Your task to perform on an android device: Go to calendar. Show me events next week Image 0: 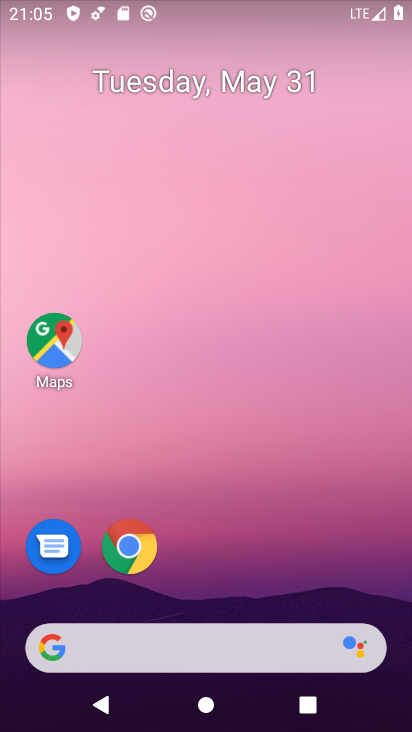
Step 0: drag from (396, 670) to (355, 118)
Your task to perform on an android device: Go to calendar. Show me events next week Image 1: 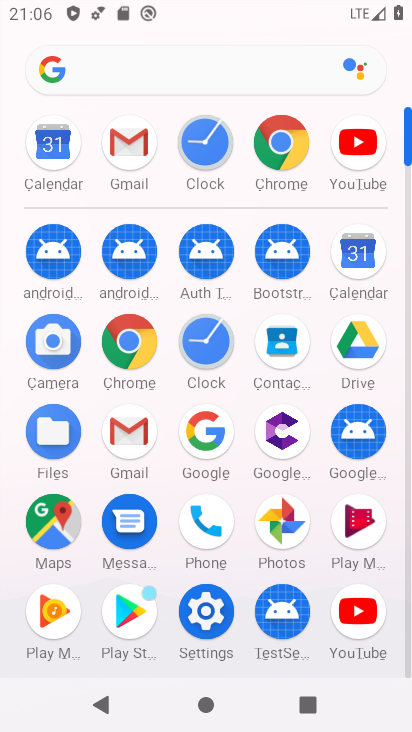
Step 1: click (353, 253)
Your task to perform on an android device: Go to calendar. Show me events next week Image 2: 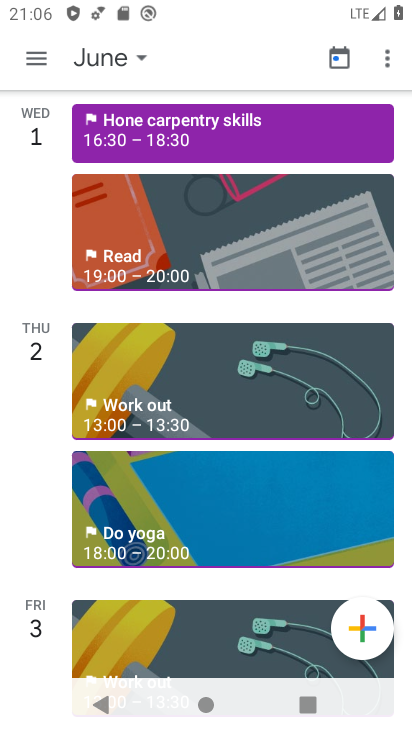
Step 2: click (138, 60)
Your task to perform on an android device: Go to calendar. Show me events next week Image 3: 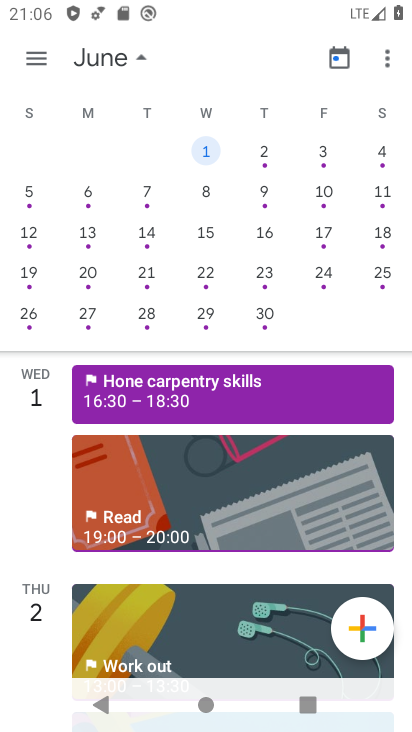
Step 3: click (203, 189)
Your task to perform on an android device: Go to calendar. Show me events next week Image 4: 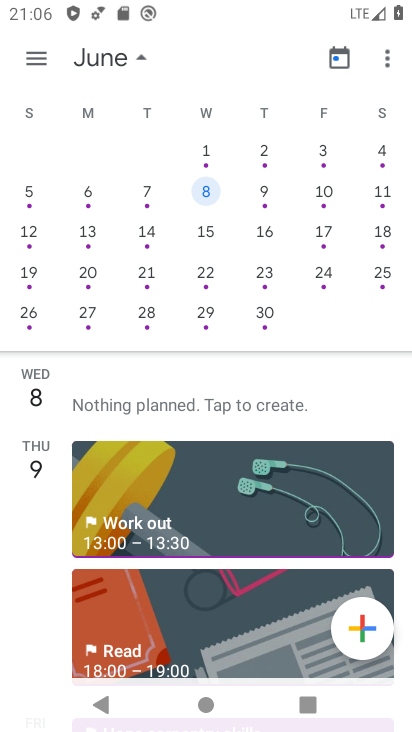
Step 4: click (36, 57)
Your task to perform on an android device: Go to calendar. Show me events next week Image 5: 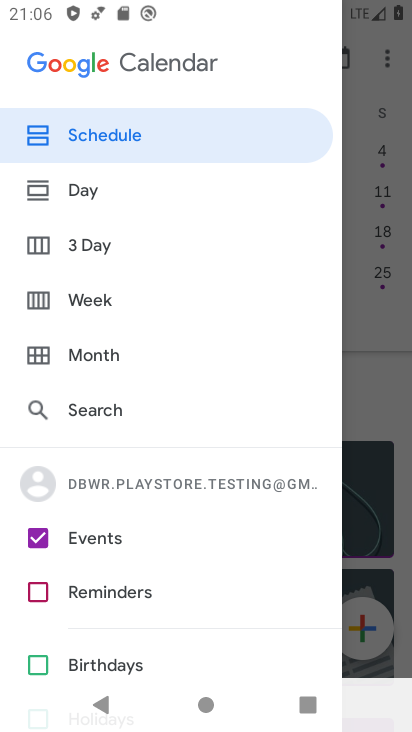
Step 5: click (78, 296)
Your task to perform on an android device: Go to calendar. Show me events next week Image 6: 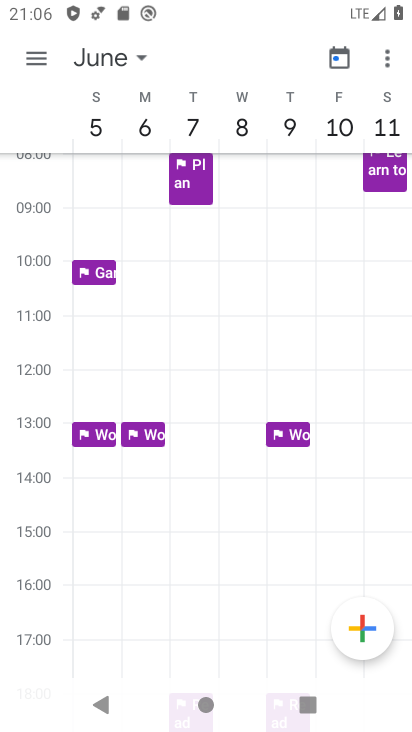
Step 6: click (42, 57)
Your task to perform on an android device: Go to calendar. Show me events next week Image 7: 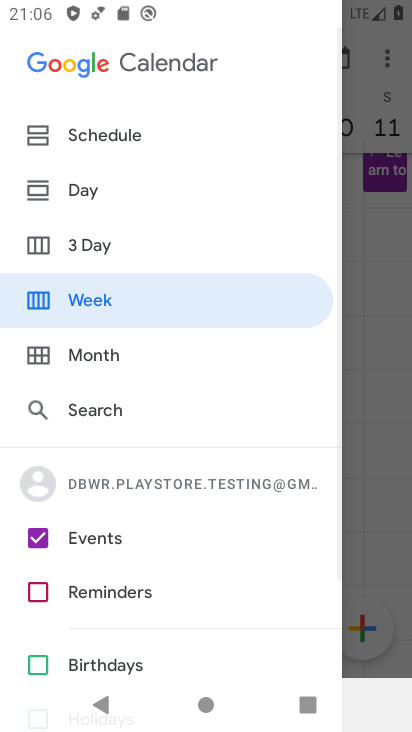
Step 7: click (85, 131)
Your task to perform on an android device: Go to calendar. Show me events next week Image 8: 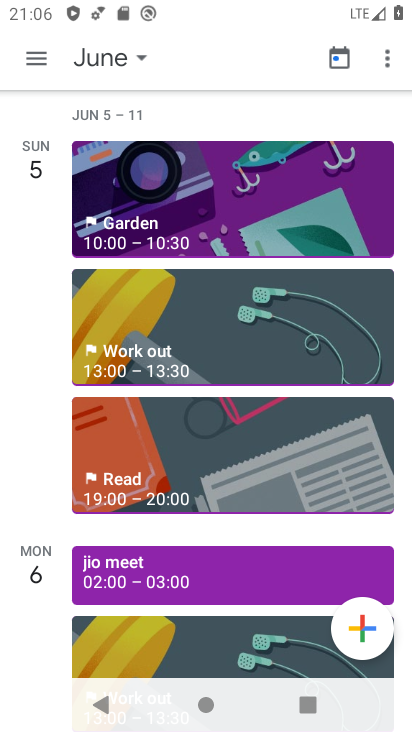
Step 8: task complete